Your task to perform on an android device: turn on location history Image 0: 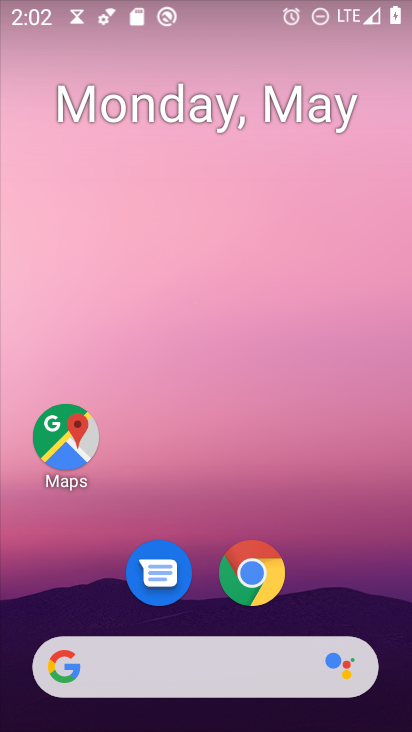
Step 0: drag from (305, 669) to (270, 15)
Your task to perform on an android device: turn on location history Image 1: 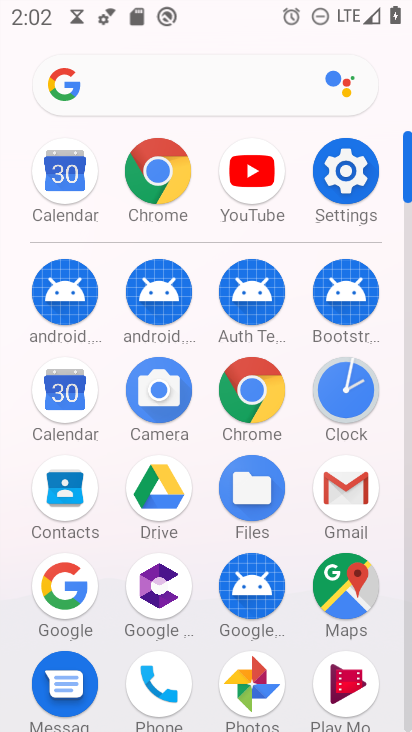
Step 1: click (328, 160)
Your task to perform on an android device: turn on location history Image 2: 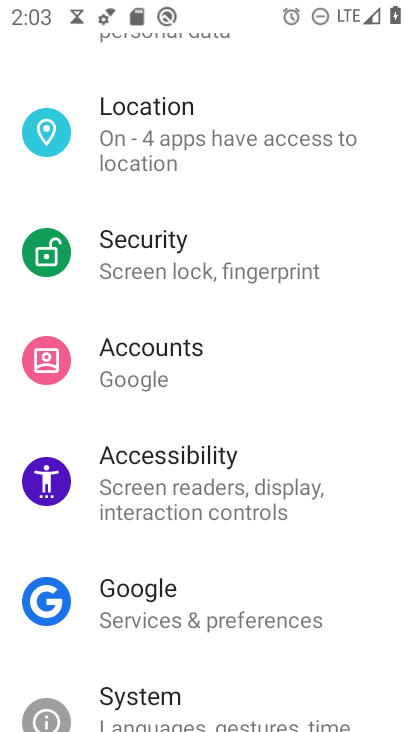
Step 2: click (266, 122)
Your task to perform on an android device: turn on location history Image 3: 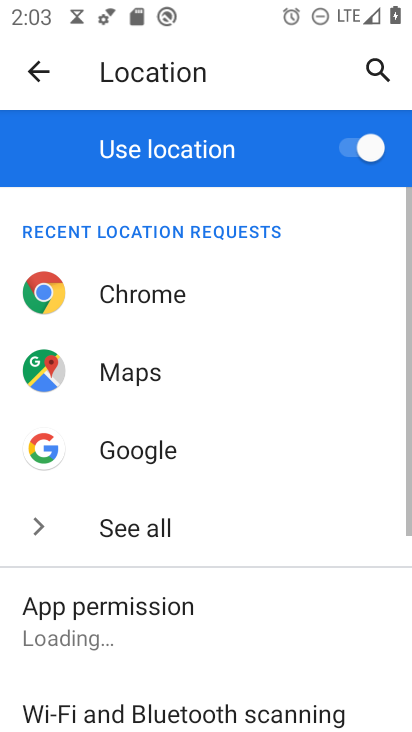
Step 3: drag from (271, 596) to (317, 1)
Your task to perform on an android device: turn on location history Image 4: 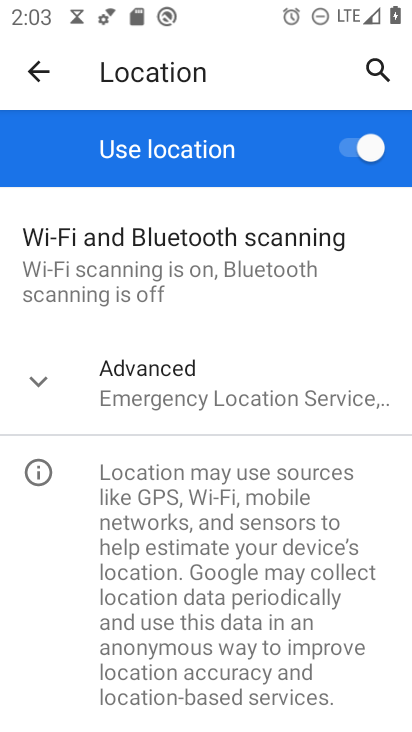
Step 4: click (259, 377)
Your task to perform on an android device: turn on location history Image 5: 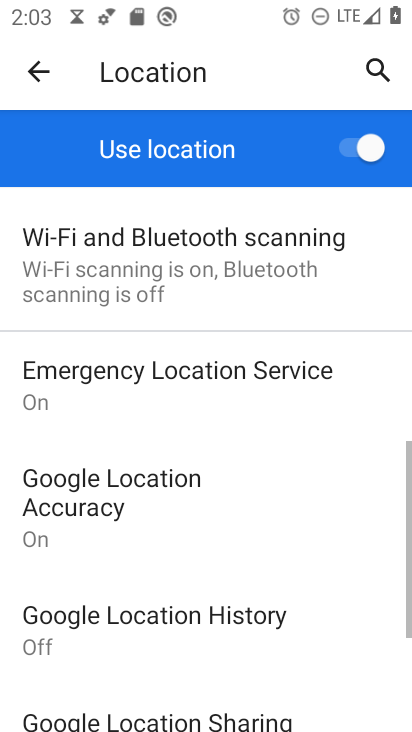
Step 5: drag from (181, 491) to (224, 232)
Your task to perform on an android device: turn on location history Image 6: 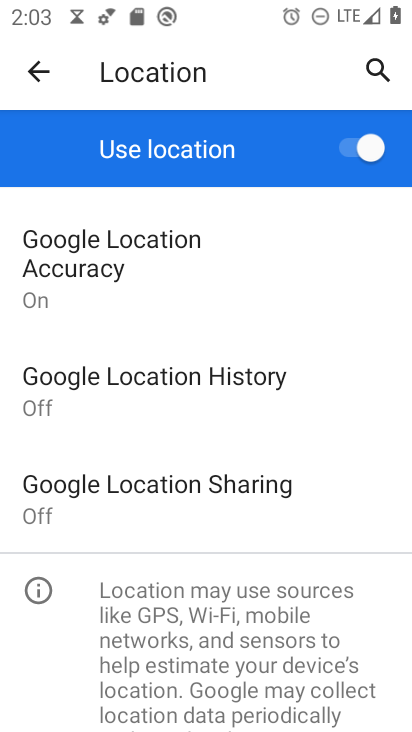
Step 6: click (152, 385)
Your task to perform on an android device: turn on location history Image 7: 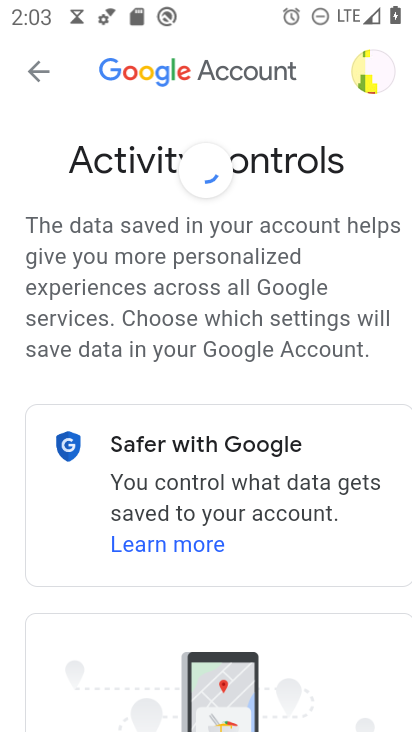
Step 7: task complete